Your task to perform on an android device: open device folders in google photos Image 0: 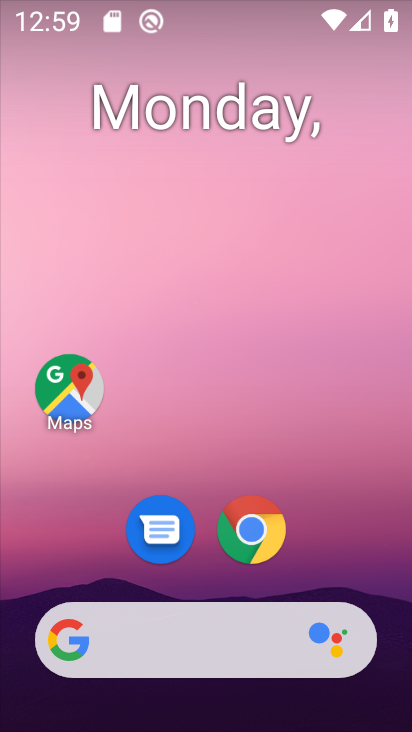
Step 0: drag from (382, 387) to (395, 141)
Your task to perform on an android device: open device folders in google photos Image 1: 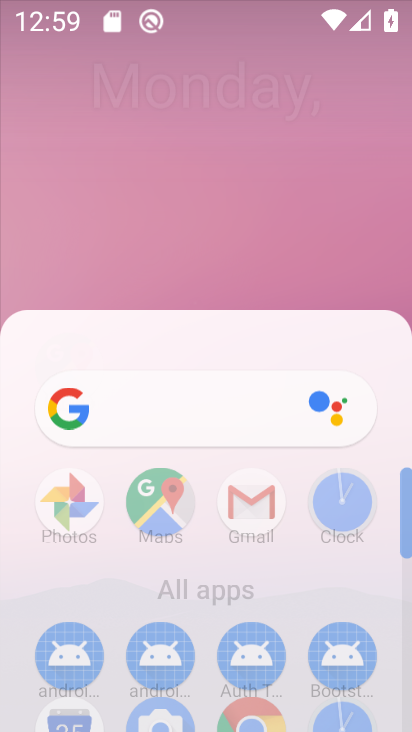
Step 1: drag from (343, 518) to (377, 35)
Your task to perform on an android device: open device folders in google photos Image 2: 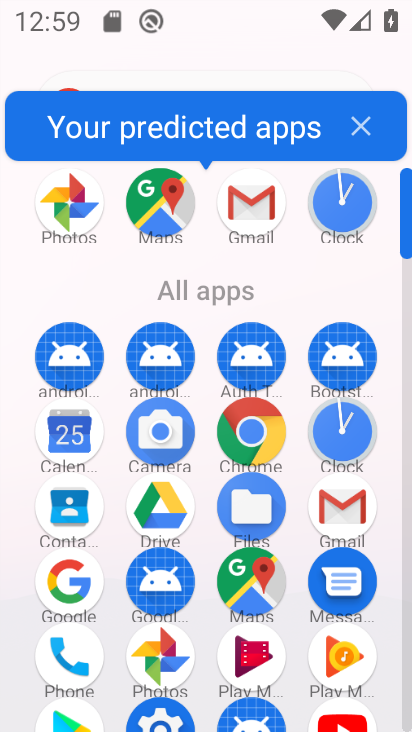
Step 2: click (63, 199)
Your task to perform on an android device: open device folders in google photos Image 3: 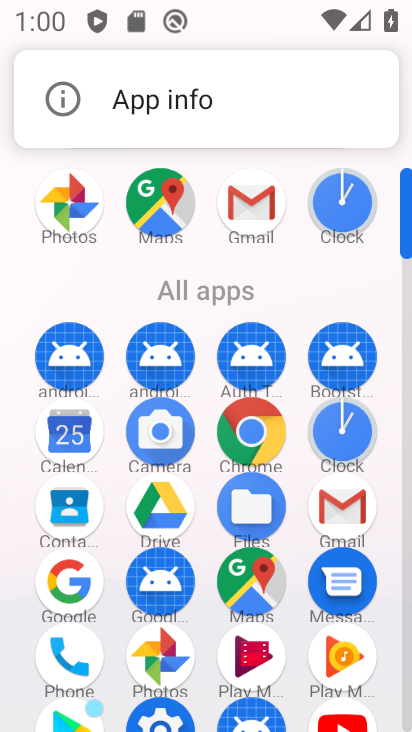
Step 3: click (62, 230)
Your task to perform on an android device: open device folders in google photos Image 4: 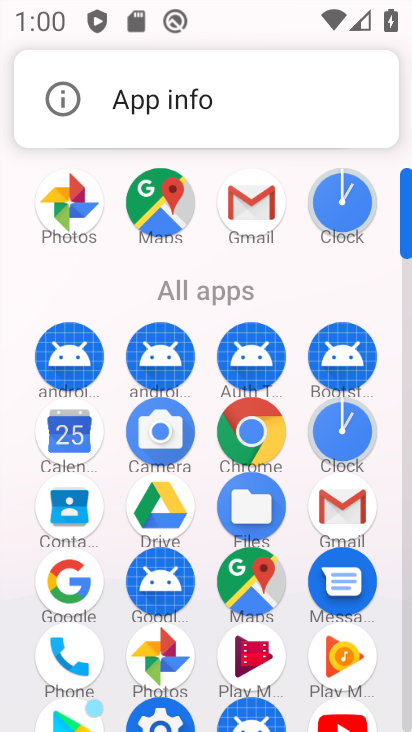
Step 4: click (68, 205)
Your task to perform on an android device: open device folders in google photos Image 5: 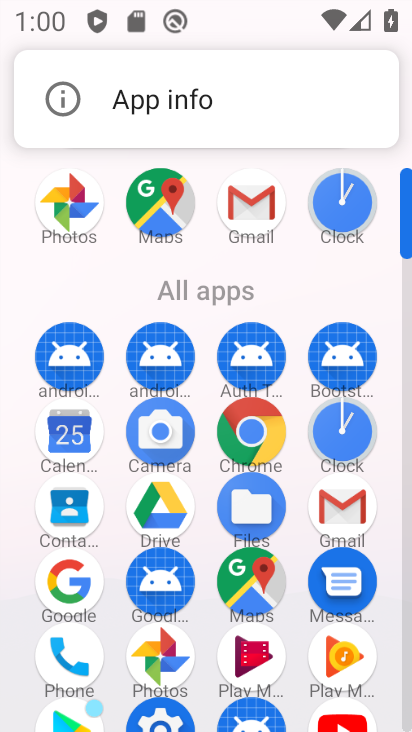
Step 5: click (62, 187)
Your task to perform on an android device: open device folders in google photos Image 6: 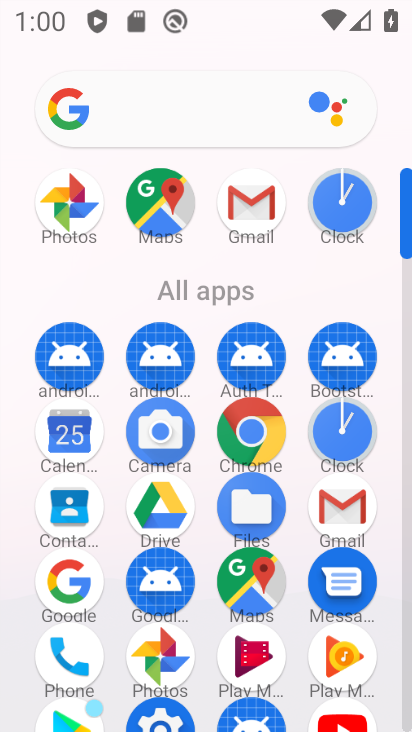
Step 6: click (63, 196)
Your task to perform on an android device: open device folders in google photos Image 7: 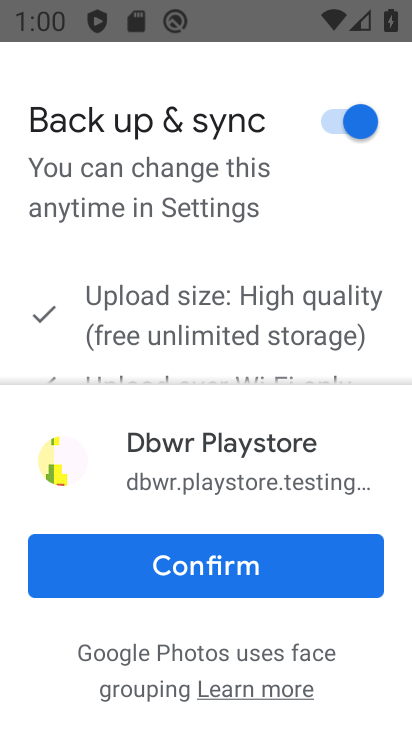
Step 7: click (179, 560)
Your task to perform on an android device: open device folders in google photos Image 8: 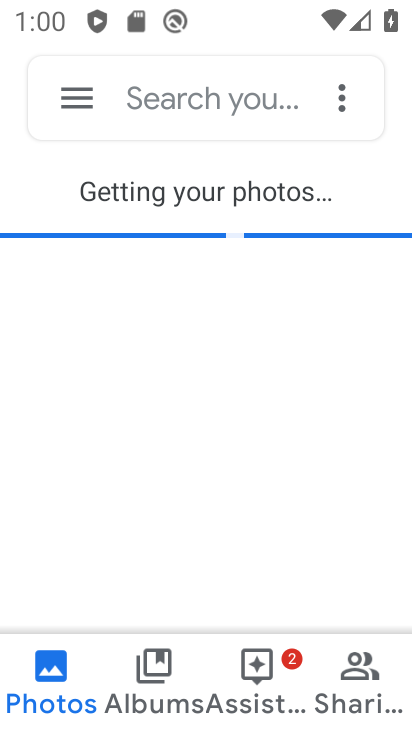
Step 8: click (64, 76)
Your task to perform on an android device: open device folders in google photos Image 9: 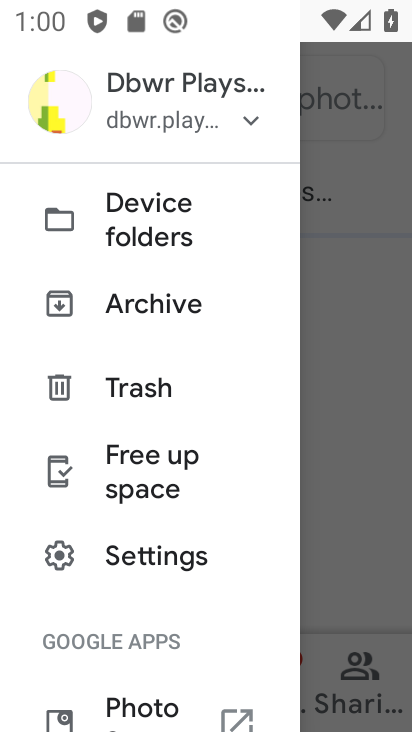
Step 9: click (114, 208)
Your task to perform on an android device: open device folders in google photos Image 10: 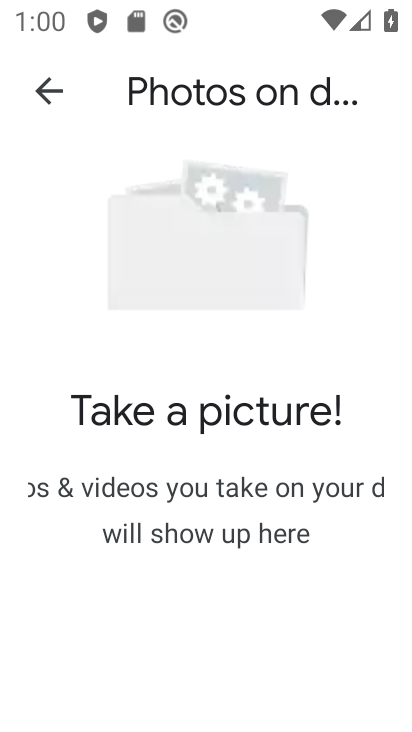
Step 10: task complete